Your task to perform on an android device: What's the weather? Image 0: 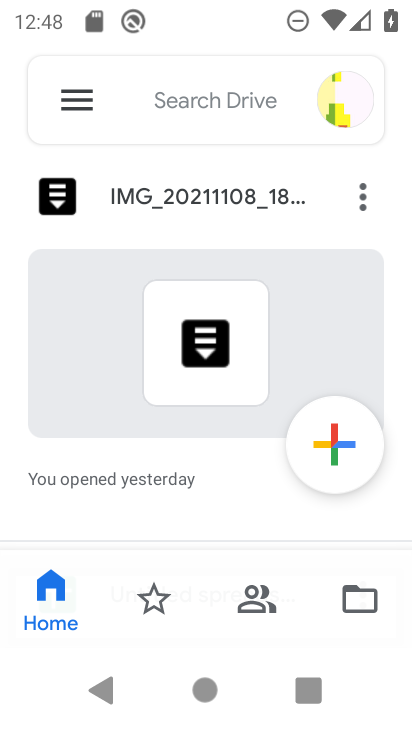
Step 0: press home button
Your task to perform on an android device: What's the weather? Image 1: 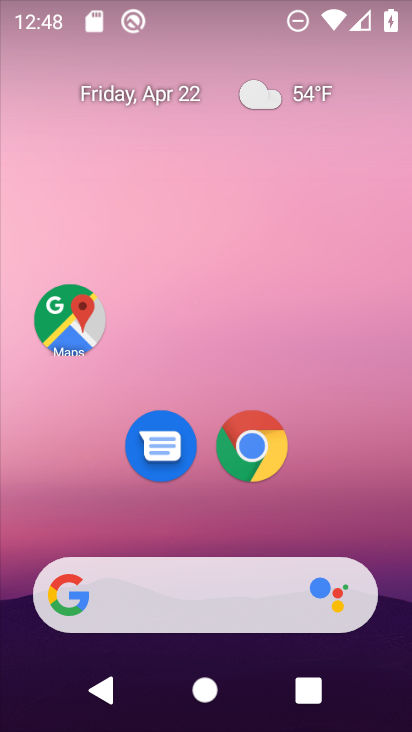
Step 1: click (250, 450)
Your task to perform on an android device: What's the weather? Image 2: 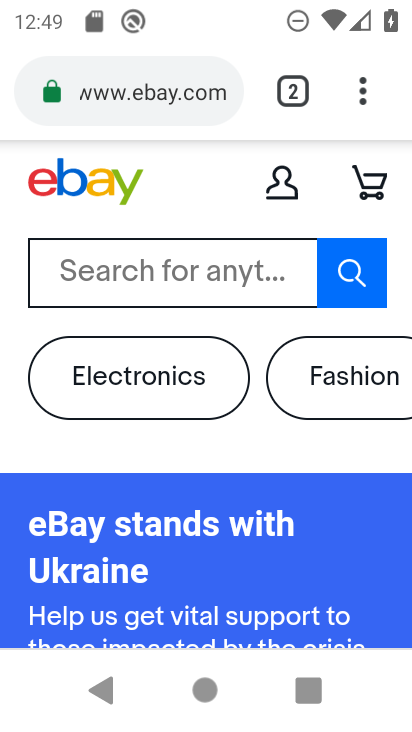
Step 2: click (196, 77)
Your task to perform on an android device: What's the weather? Image 3: 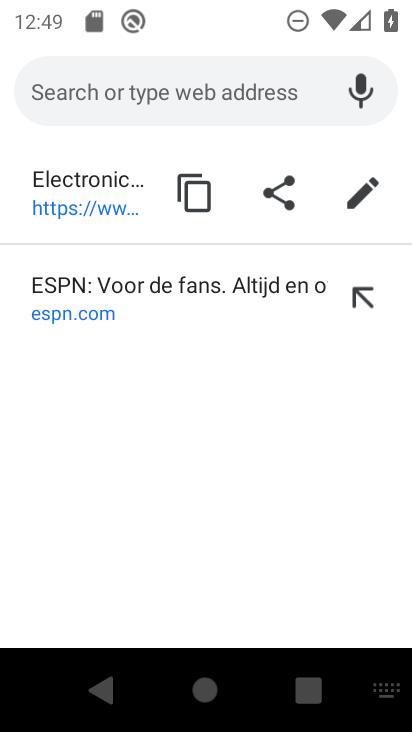
Step 3: type "What's the weather?"
Your task to perform on an android device: What's the weather? Image 4: 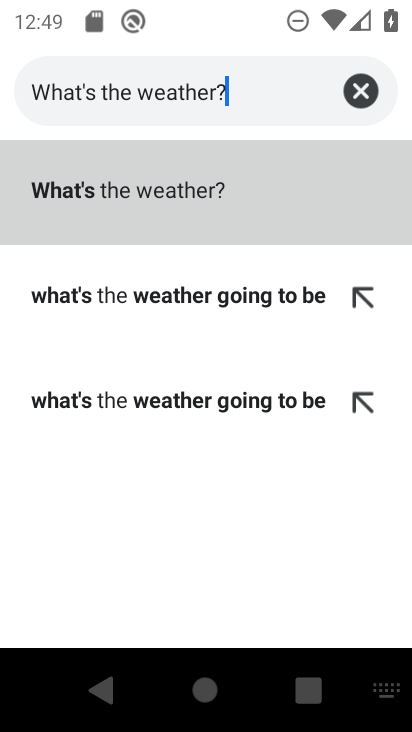
Step 4: click (83, 187)
Your task to perform on an android device: What's the weather? Image 5: 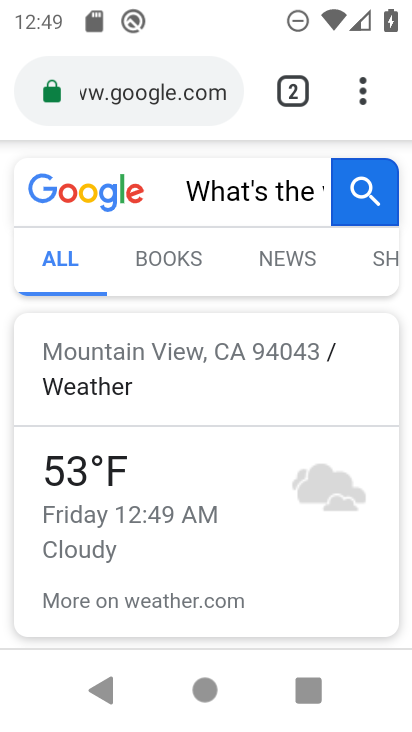
Step 5: task complete